Your task to perform on an android device: Find coffee shops on Maps Image 0: 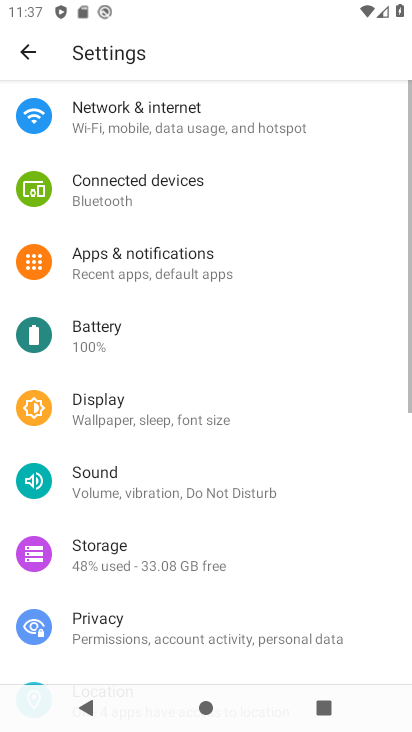
Step 0: press home button
Your task to perform on an android device: Find coffee shops on Maps Image 1: 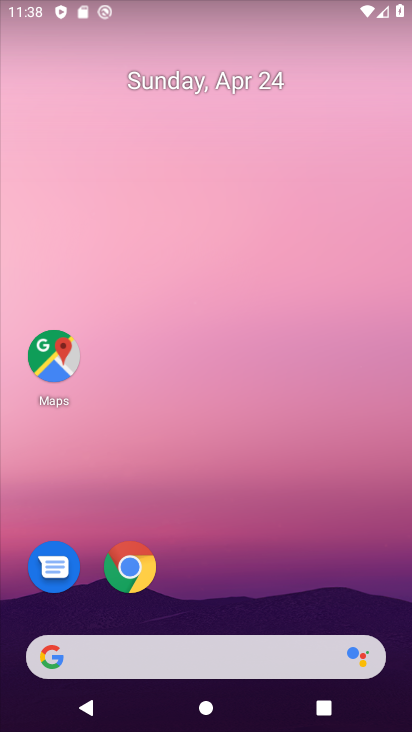
Step 1: click (48, 364)
Your task to perform on an android device: Find coffee shops on Maps Image 2: 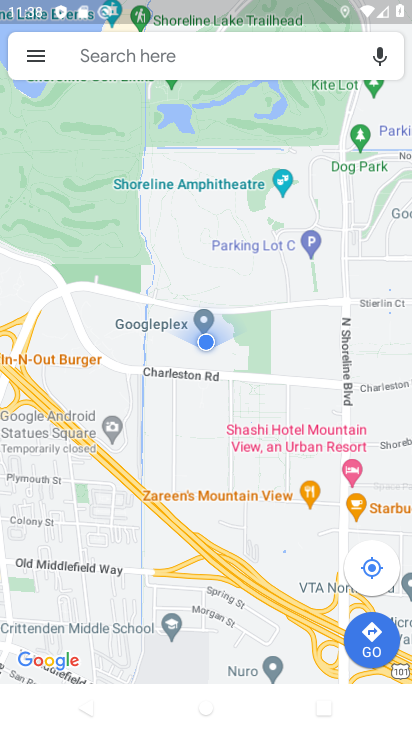
Step 2: click (193, 54)
Your task to perform on an android device: Find coffee shops on Maps Image 3: 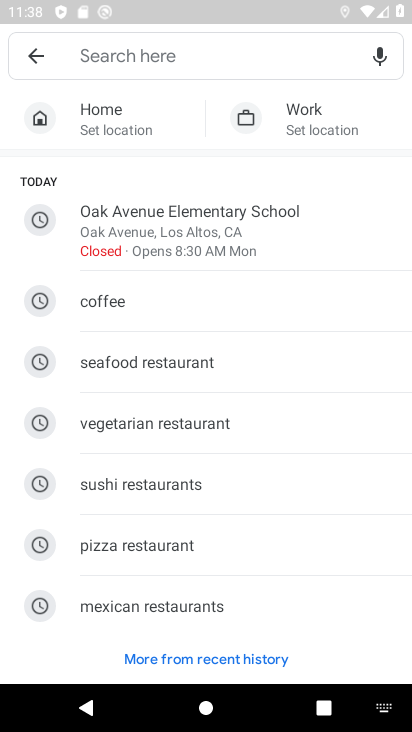
Step 3: type "coffee shops"
Your task to perform on an android device: Find coffee shops on Maps Image 4: 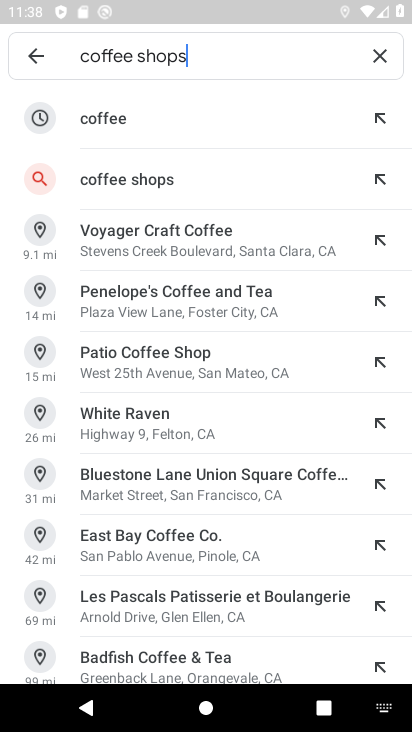
Step 4: click (169, 190)
Your task to perform on an android device: Find coffee shops on Maps Image 5: 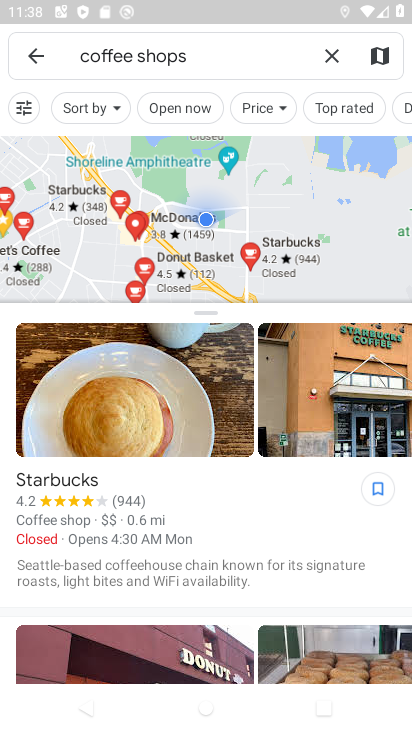
Step 5: task complete